Your task to perform on an android device: change alarm snooze length Image 0: 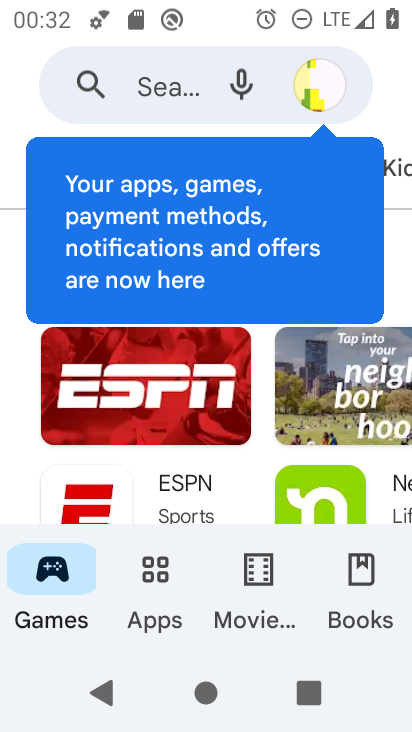
Step 0: press home button
Your task to perform on an android device: change alarm snooze length Image 1: 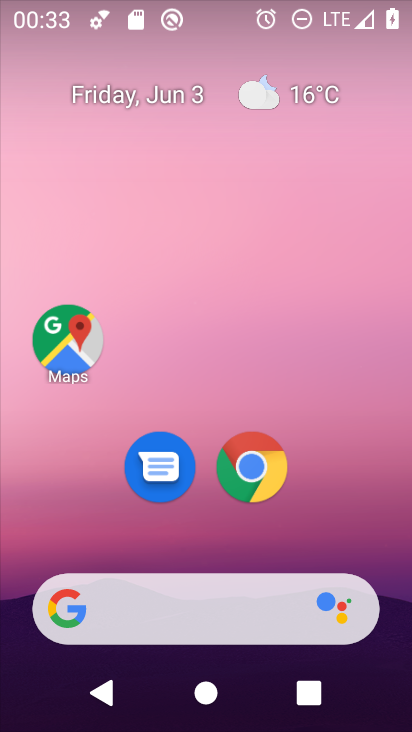
Step 1: drag from (385, 546) to (337, 23)
Your task to perform on an android device: change alarm snooze length Image 2: 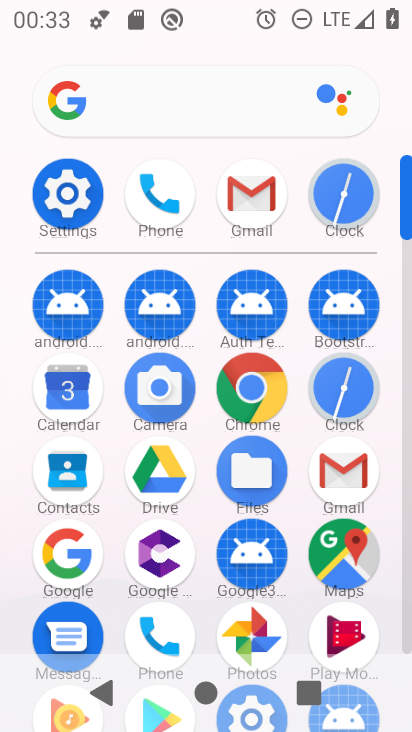
Step 2: click (404, 638)
Your task to perform on an android device: change alarm snooze length Image 3: 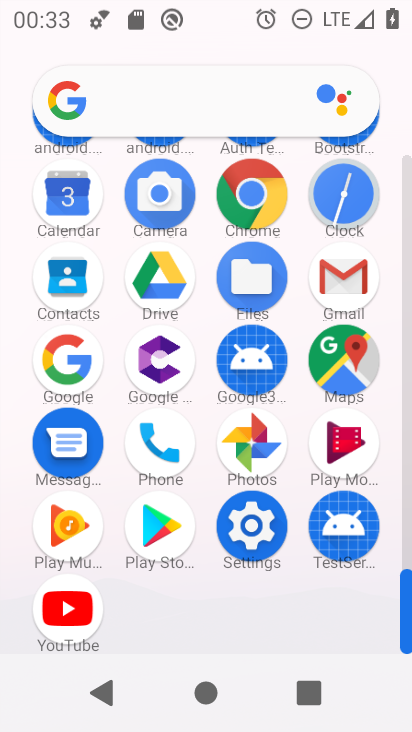
Step 3: click (343, 193)
Your task to perform on an android device: change alarm snooze length Image 4: 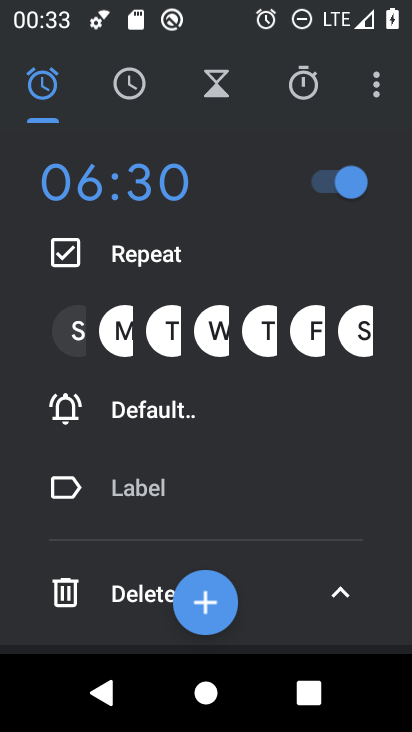
Step 4: click (375, 93)
Your task to perform on an android device: change alarm snooze length Image 5: 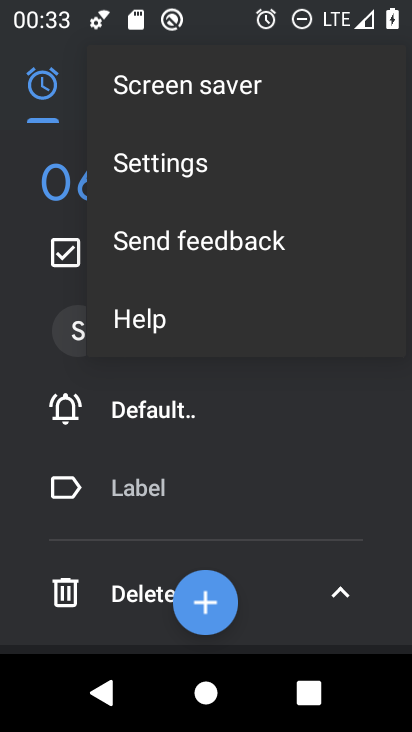
Step 5: click (157, 165)
Your task to perform on an android device: change alarm snooze length Image 6: 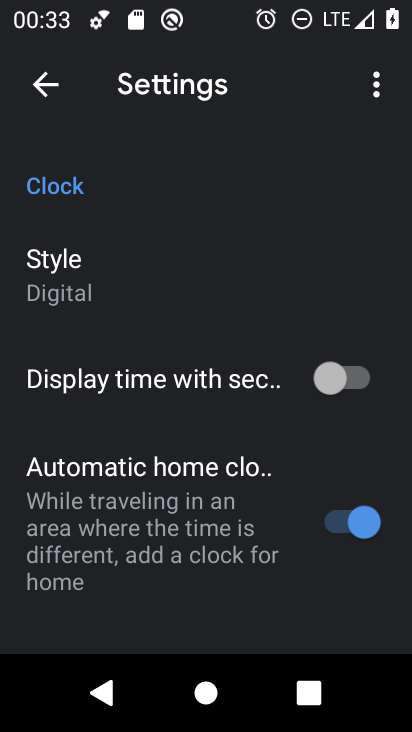
Step 6: drag from (204, 526) to (256, 159)
Your task to perform on an android device: change alarm snooze length Image 7: 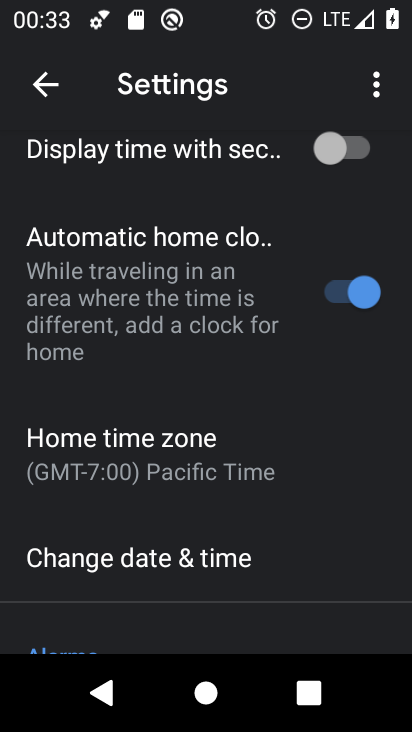
Step 7: drag from (218, 623) to (244, 212)
Your task to perform on an android device: change alarm snooze length Image 8: 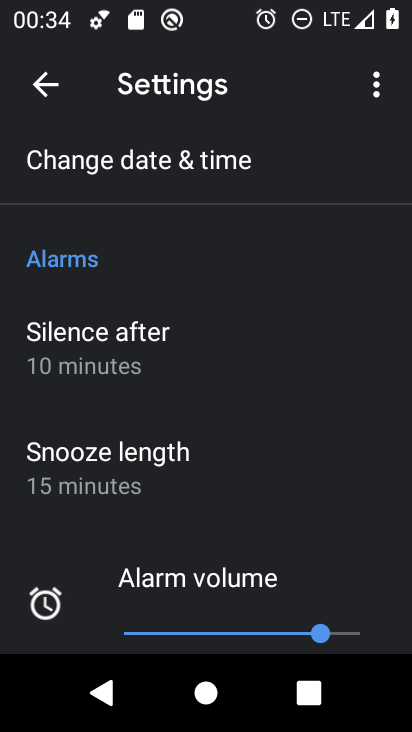
Step 8: click (108, 478)
Your task to perform on an android device: change alarm snooze length Image 9: 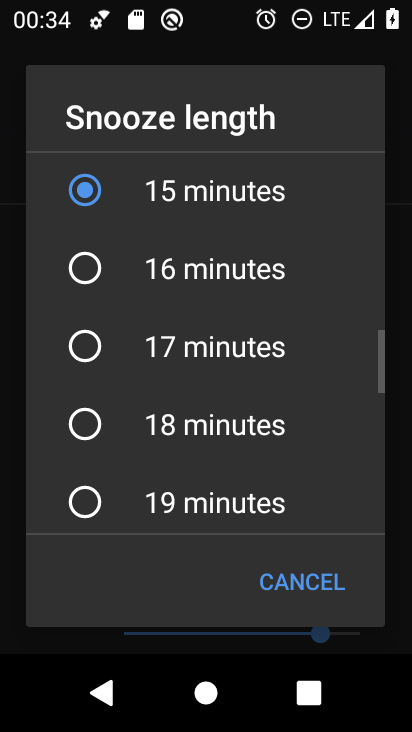
Step 9: drag from (174, 171) to (193, 482)
Your task to perform on an android device: change alarm snooze length Image 10: 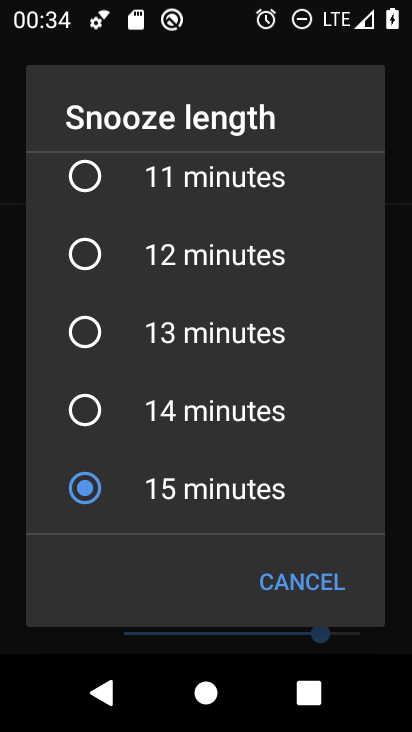
Step 10: click (81, 185)
Your task to perform on an android device: change alarm snooze length Image 11: 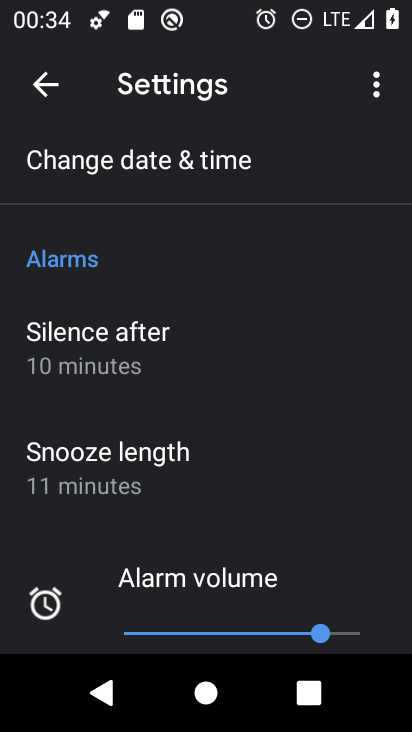
Step 11: task complete